Your task to perform on an android device: turn off translation in the chrome app Image 0: 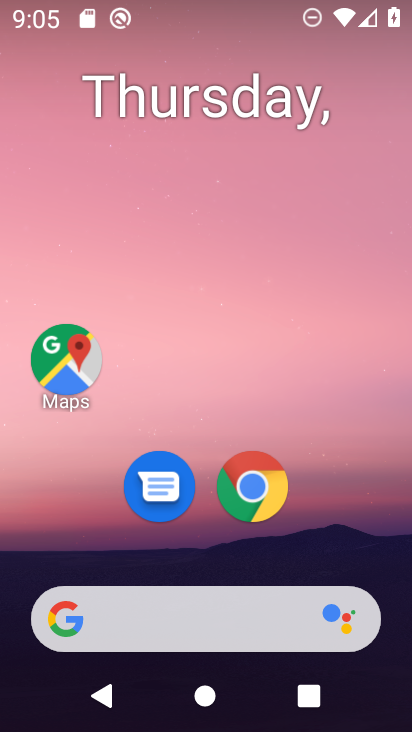
Step 0: click (267, 489)
Your task to perform on an android device: turn off translation in the chrome app Image 1: 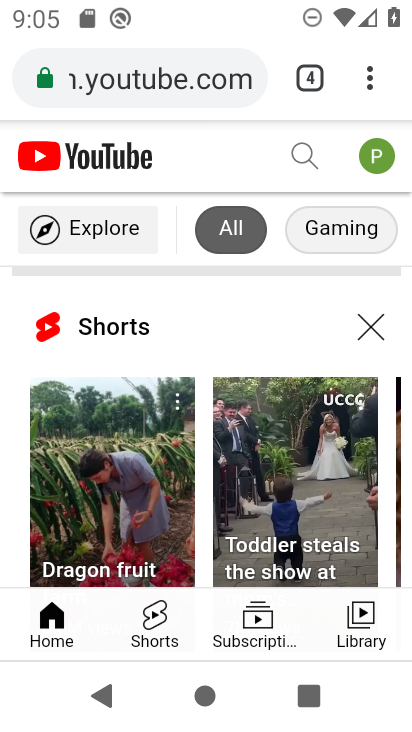
Step 1: drag from (370, 69) to (90, 536)
Your task to perform on an android device: turn off translation in the chrome app Image 2: 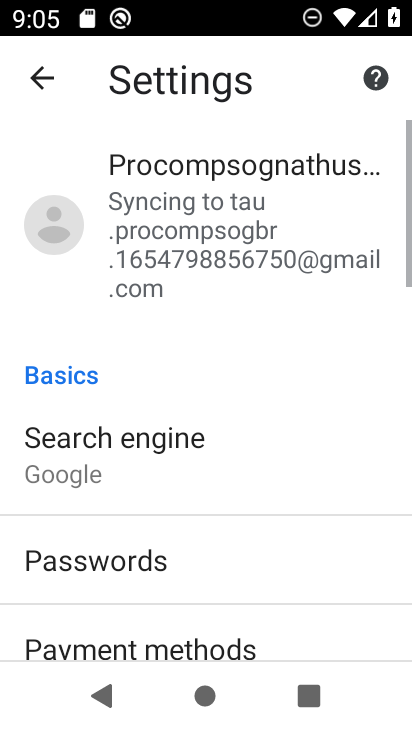
Step 2: drag from (188, 606) to (270, 24)
Your task to perform on an android device: turn off translation in the chrome app Image 3: 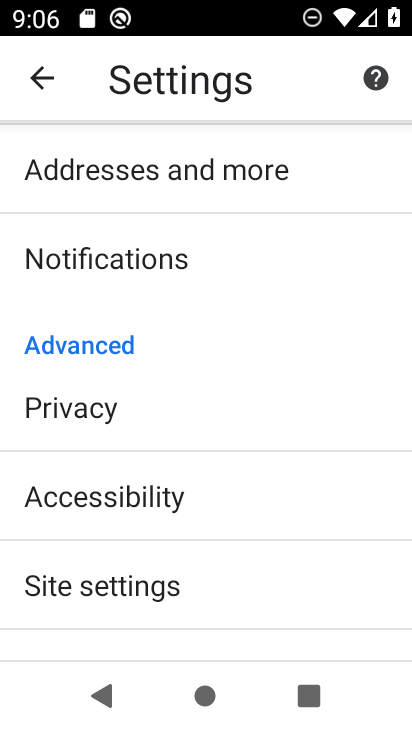
Step 3: drag from (115, 583) to (187, 357)
Your task to perform on an android device: turn off translation in the chrome app Image 4: 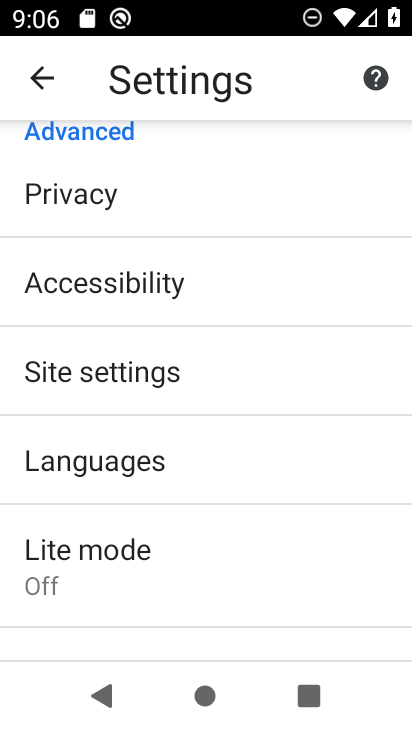
Step 4: click (131, 442)
Your task to perform on an android device: turn off translation in the chrome app Image 5: 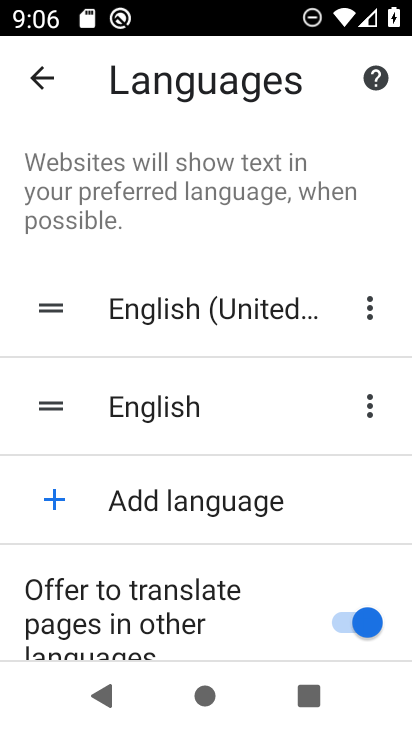
Step 5: click (351, 622)
Your task to perform on an android device: turn off translation in the chrome app Image 6: 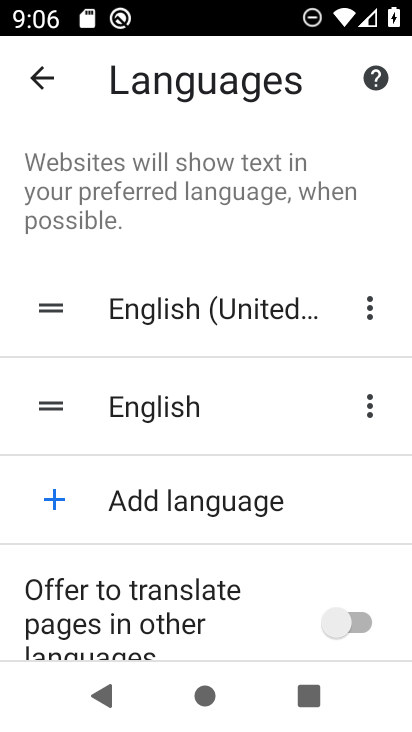
Step 6: task complete